Your task to perform on an android device: change the upload size in google photos Image 0: 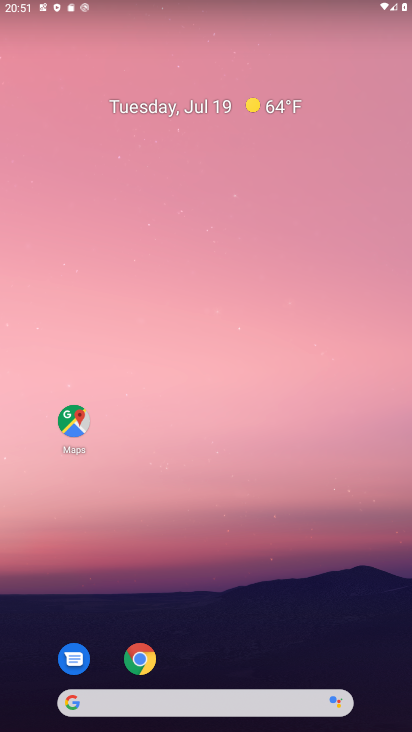
Step 0: drag from (203, 645) to (279, 32)
Your task to perform on an android device: change the upload size in google photos Image 1: 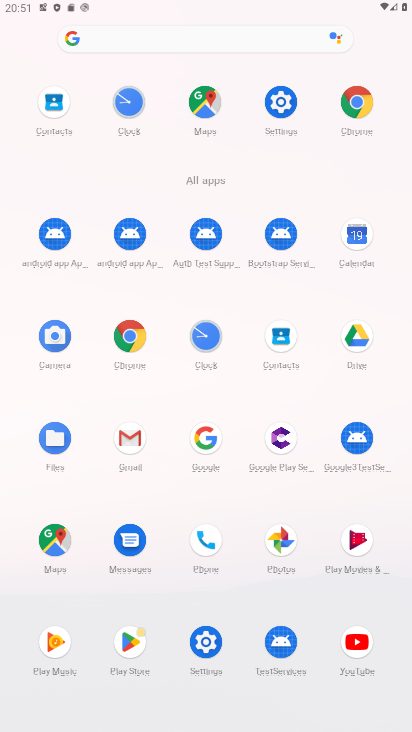
Step 1: click (279, 547)
Your task to perform on an android device: change the upload size in google photos Image 2: 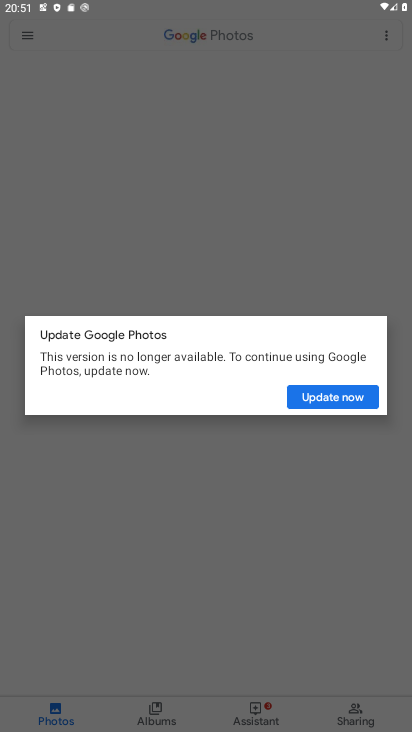
Step 2: click (330, 394)
Your task to perform on an android device: change the upload size in google photos Image 3: 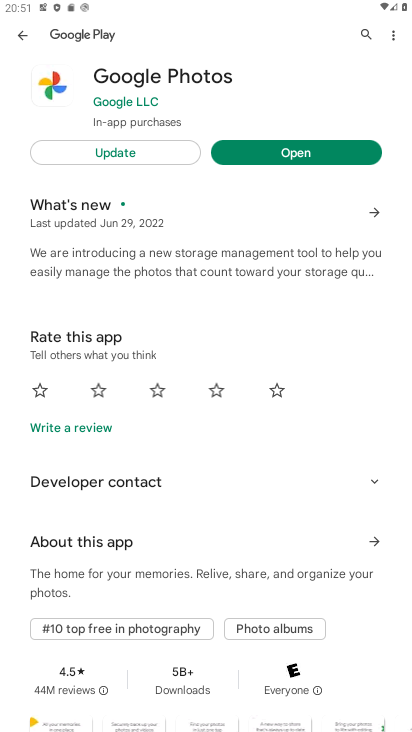
Step 3: click (308, 158)
Your task to perform on an android device: change the upload size in google photos Image 4: 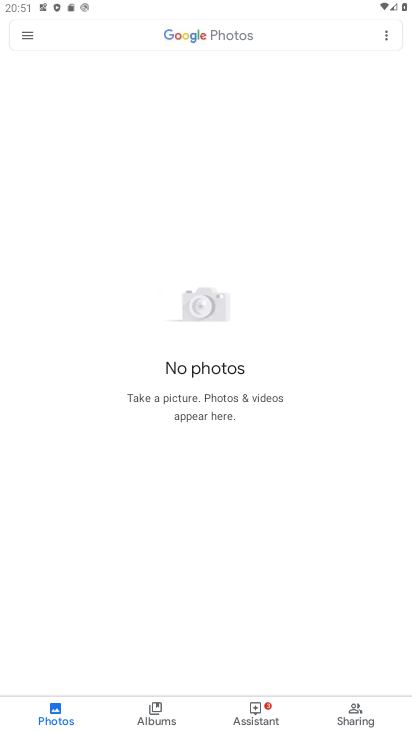
Step 4: click (30, 37)
Your task to perform on an android device: change the upload size in google photos Image 5: 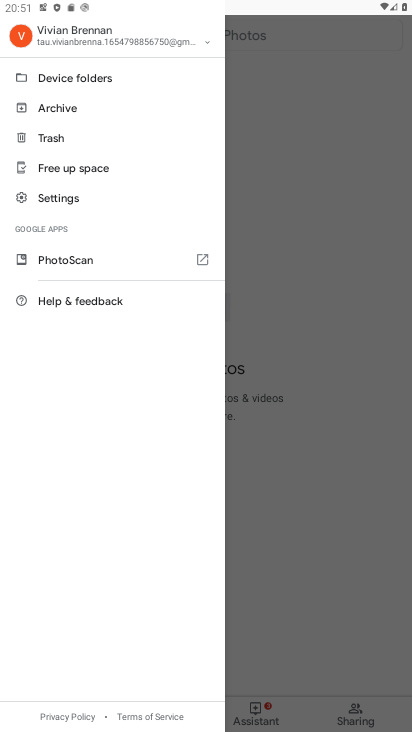
Step 5: click (65, 208)
Your task to perform on an android device: change the upload size in google photos Image 6: 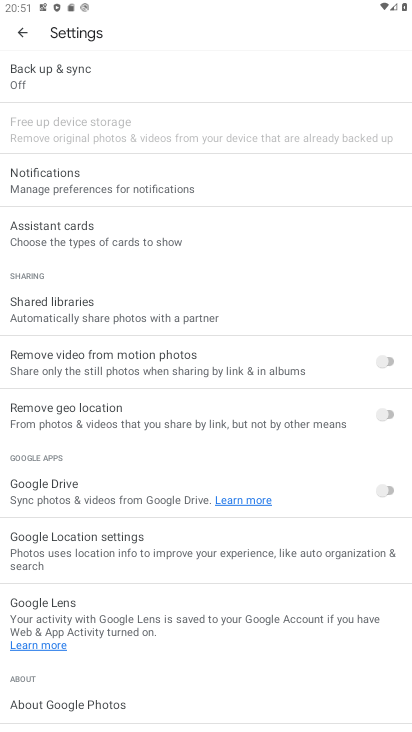
Step 6: click (129, 89)
Your task to perform on an android device: change the upload size in google photos Image 7: 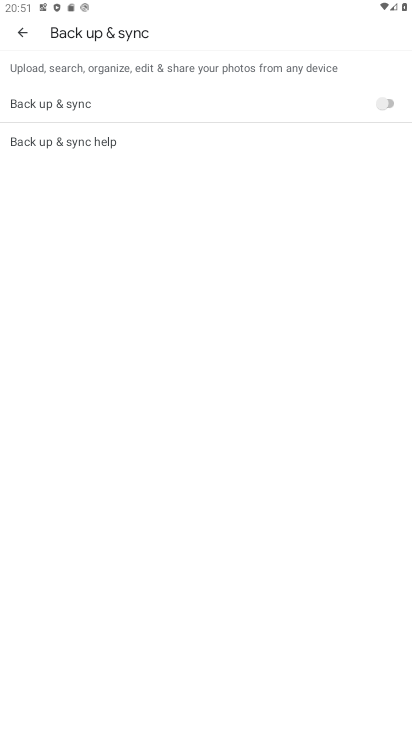
Step 7: click (394, 108)
Your task to perform on an android device: change the upload size in google photos Image 8: 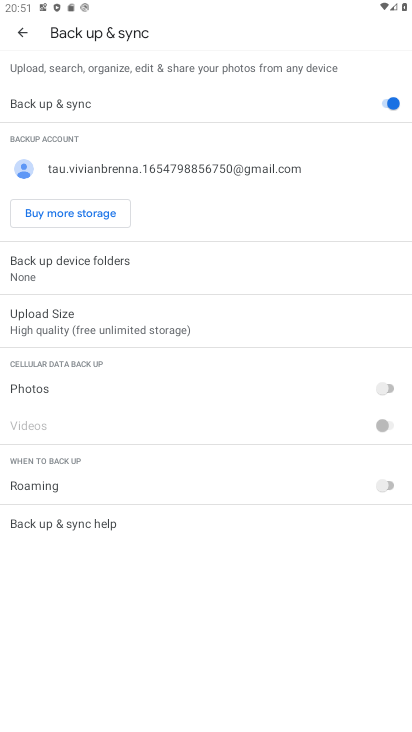
Step 8: click (119, 307)
Your task to perform on an android device: change the upload size in google photos Image 9: 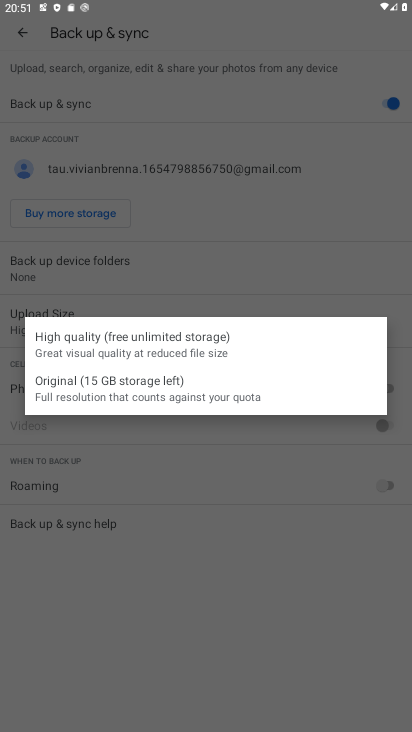
Step 9: click (175, 383)
Your task to perform on an android device: change the upload size in google photos Image 10: 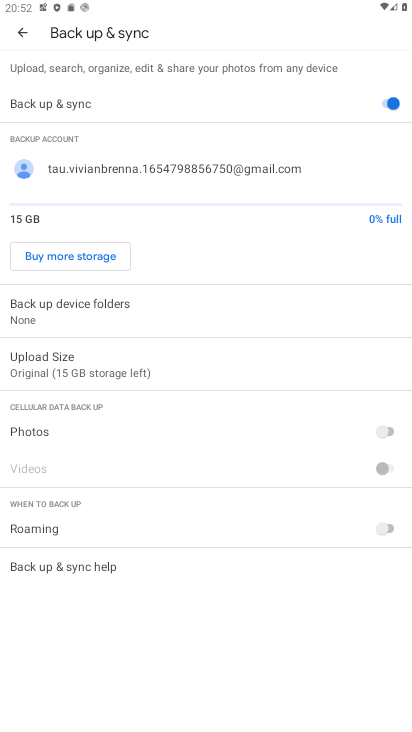
Step 10: task complete